Your task to perform on an android device: open a new tab in the chrome app Image 0: 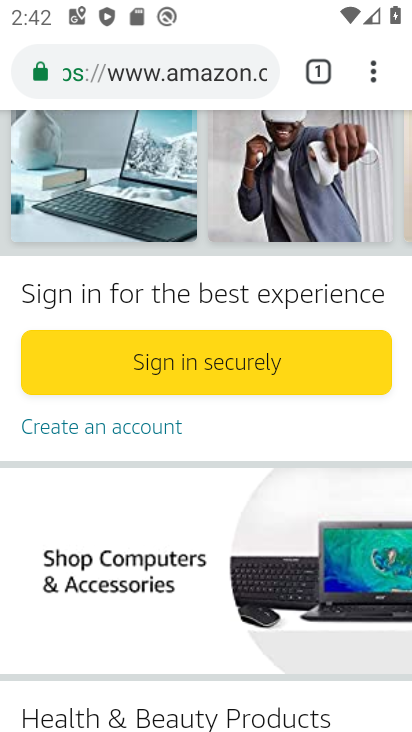
Step 0: drag from (263, 605) to (302, 46)
Your task to perform on an android device: open a new tab in the chrome app Image 1: 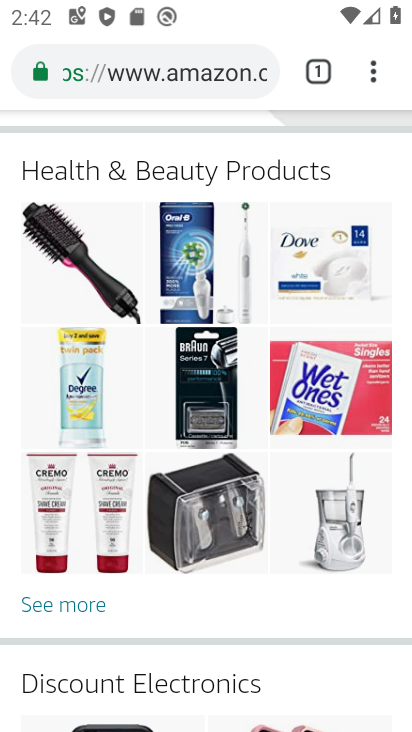
Step 1: task complete